Your task to perform on an android device: Go to eBay Image 0: 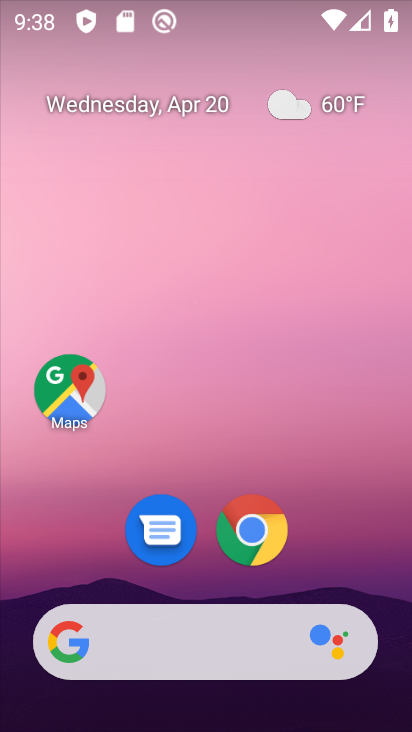
Step 0: click (210, 647)
Your task to perform on an android device: Go to eBay Image 1: 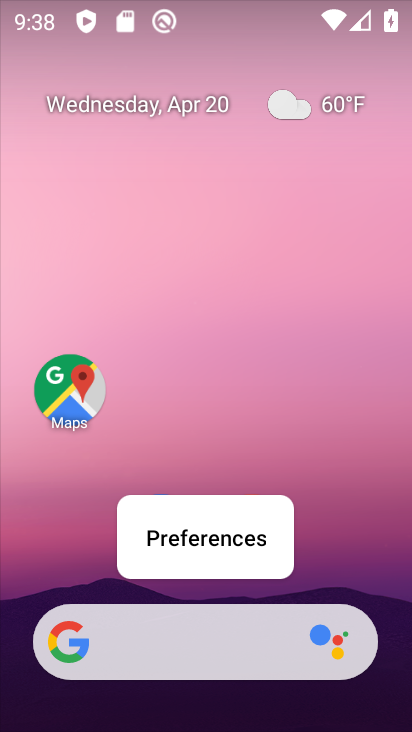
Step 1: click (210, 647)
Your task to perform on an android device: Go to eBay Image 2: 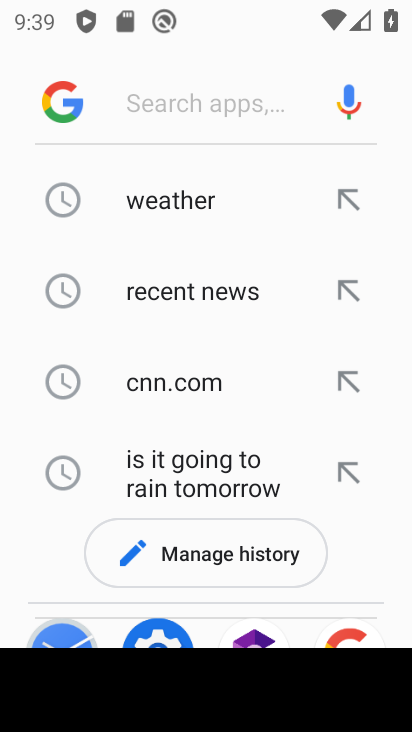
Step 2: type "ebay"
Your task to perform on an android device: Go to eBay Image 3: 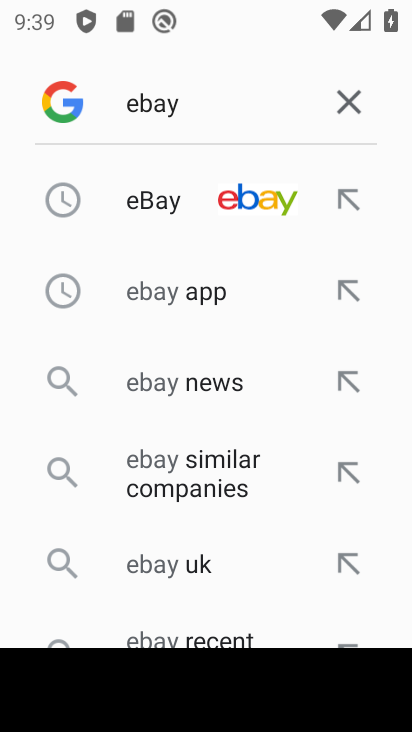
Step 3: click (279, 194)
Your task to perform on an android device: Go to eBay Image 4: 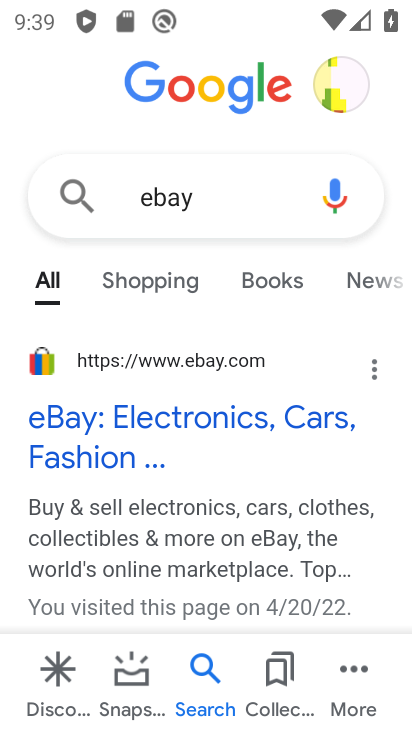
Step 4: click (187, 420)
Your task to perform on an android device: Go to eBay Image 5: 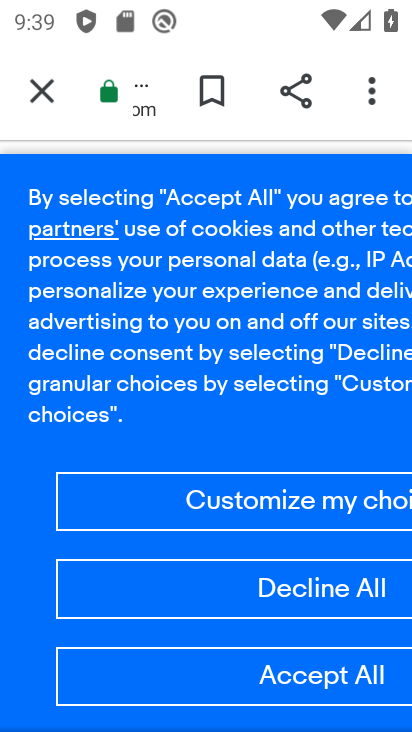
Step 5: task complete